Your task to perform on an android device: Toggle the flashlight Image 0: 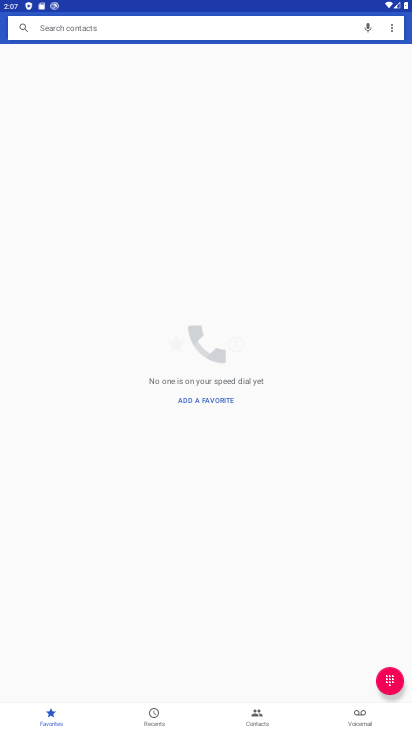
Step 0: press home button
Your task to perform on an android device: Toggle the flashlight Image 1: 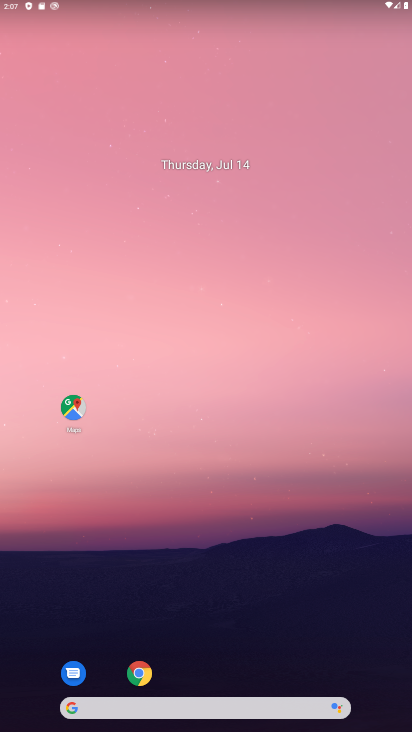
Step 1: drag from (239, 558) to (170, 78)
Your task to perform on an android device: Toggle the flashlight Image 2: 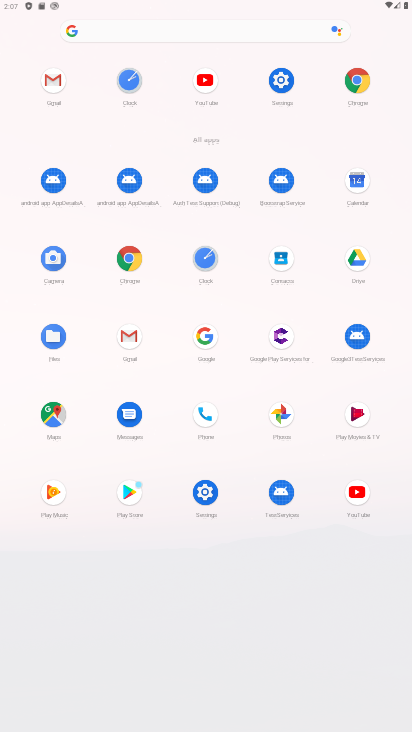
Step 2: click (281, 80)
Your task to perform on an android device: Toggle the flashlight Image 3: 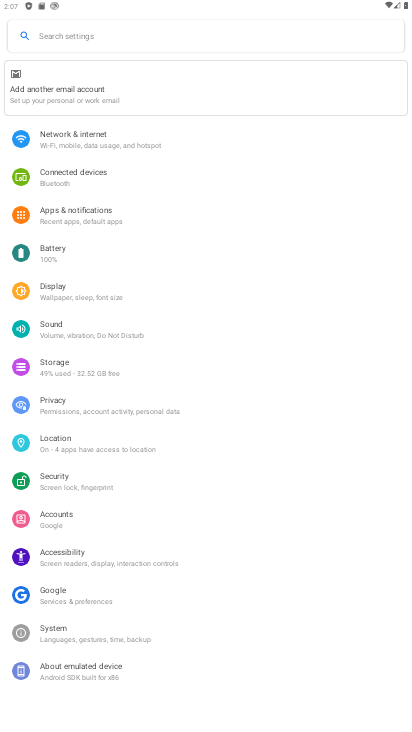
Step 3: click (55, 286)
Your task to perform on an android device: Toggle the flashlight Image 4: 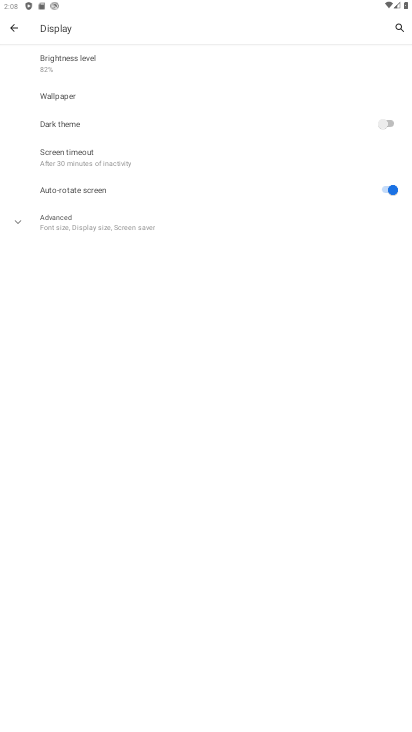
Step 4: task complete